Your task to perform on an android device: turn off improve location accuracy Image 0: 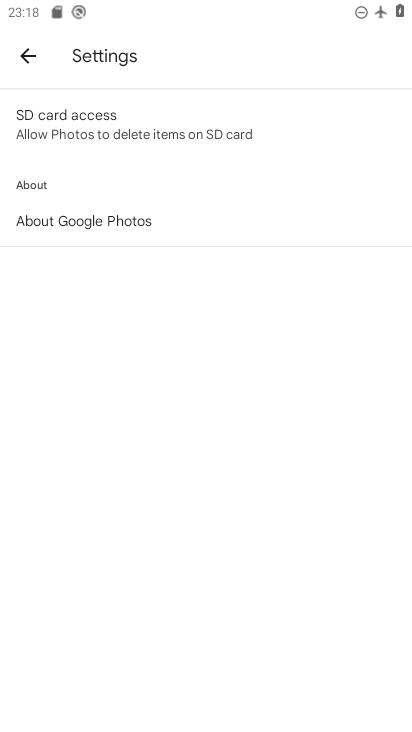
Step 0: press home button
Your task to perform on an android device: turn off improve location accuracy Image 1: 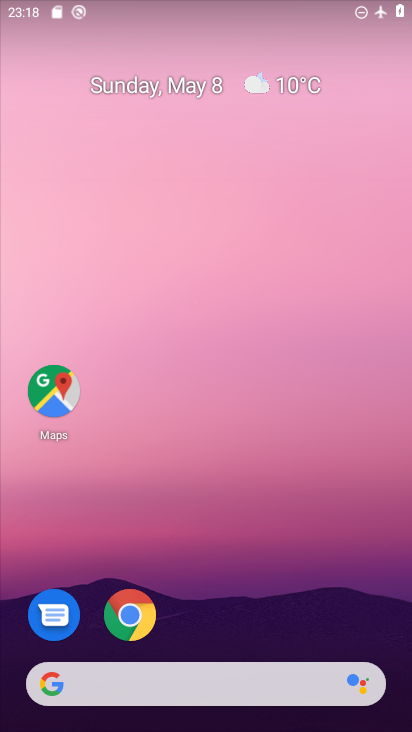
Step 1: drag from (301, 591) to (246, 139)
Your task to perform on an android device: turn off improve location accuracy Image 2: 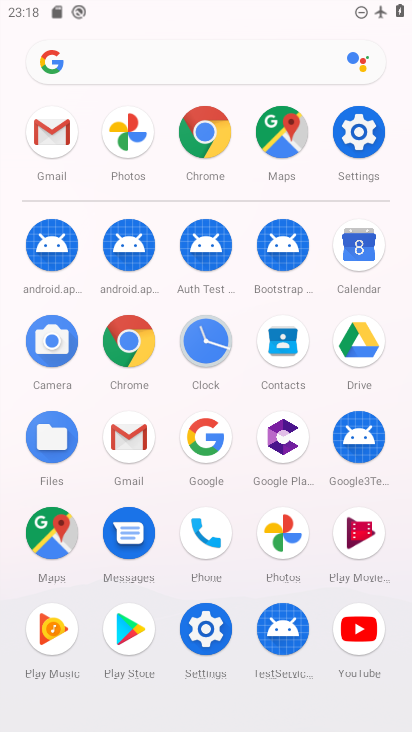
Step 2: click (366, 142)
Your task to perform on an android device: turn off improve location accuracy Image 3: 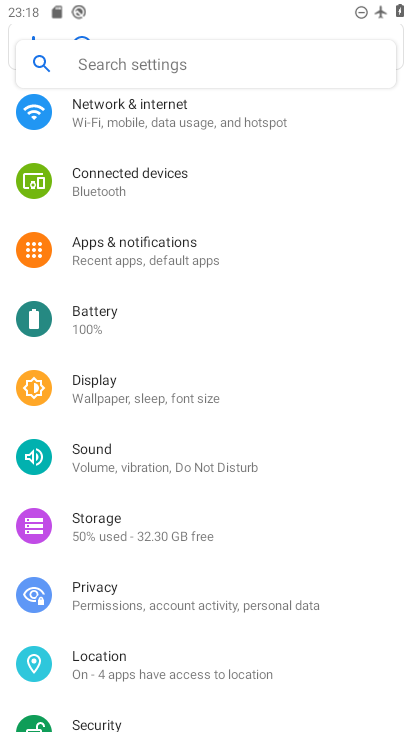
Step 3: drag from (163, 627) to (247, 188)
Your task to perform on an android device: turn off improve location accuracy Image 4: 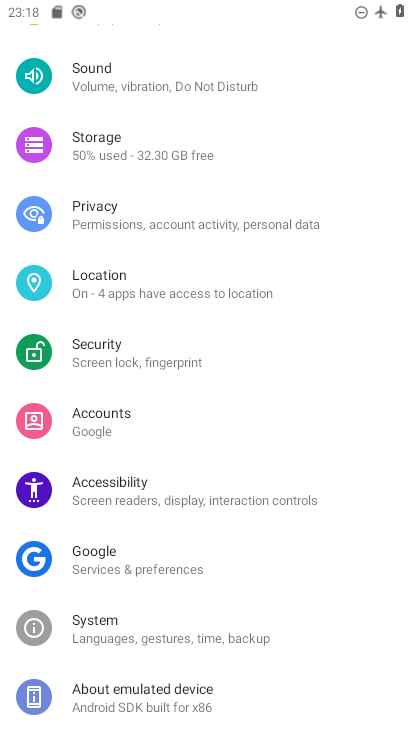
Step 4: click (153, 281)
Your task to perform on an android device: turn off improve location accuracy Image 5: 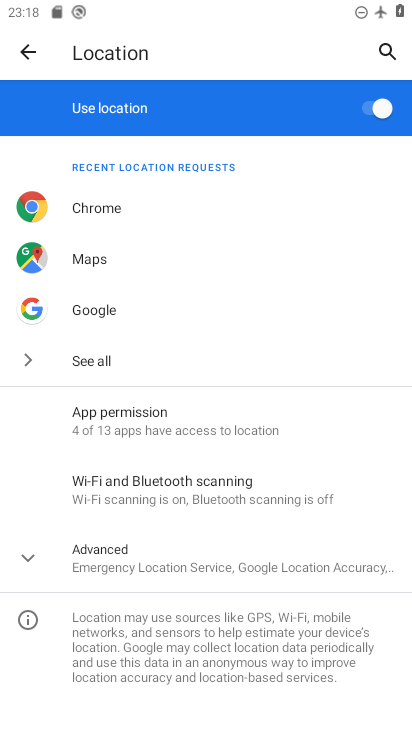
Step 5: click (143, 547)
Your task to perform on an android device: turn off improve location accuracy Image 6: 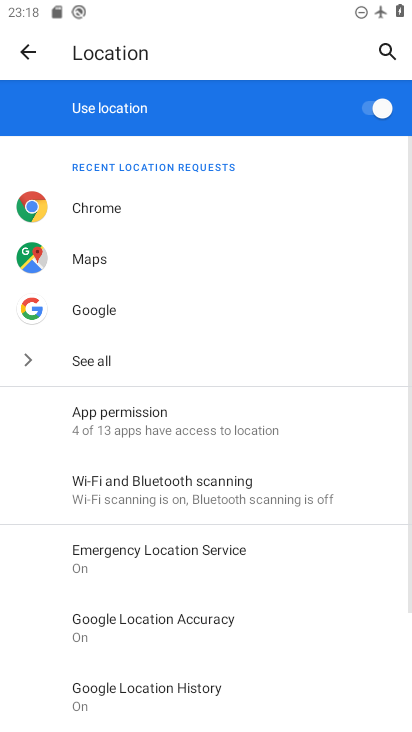
Step 6: drag from (333, 630) to (289, 266)
Your task to perform on an android device: turn off improve location accuracy Image 7: 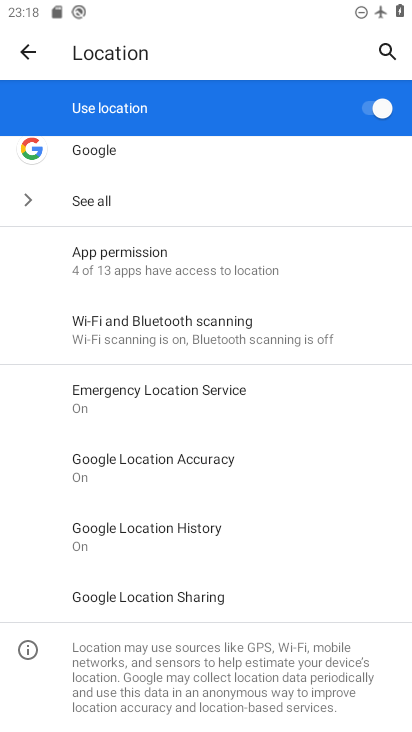
Step 7: click (206, 471)
Your task to perform on an android device: turn off improve location accuracy Image 8: 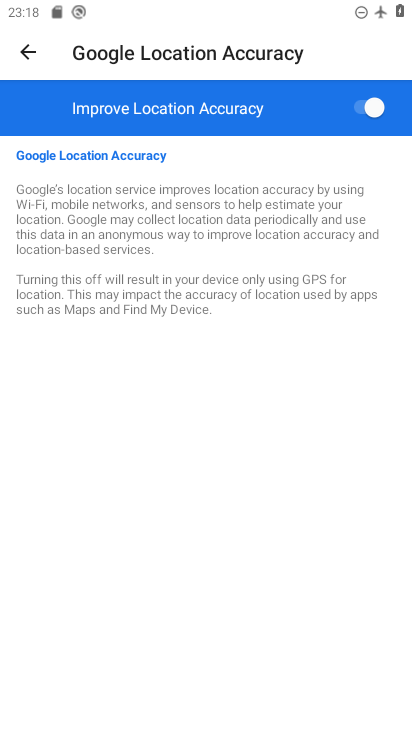
Step 8: click (372, 108)
Your task to perform on an android device: turn off improve location accuracy Image 9: 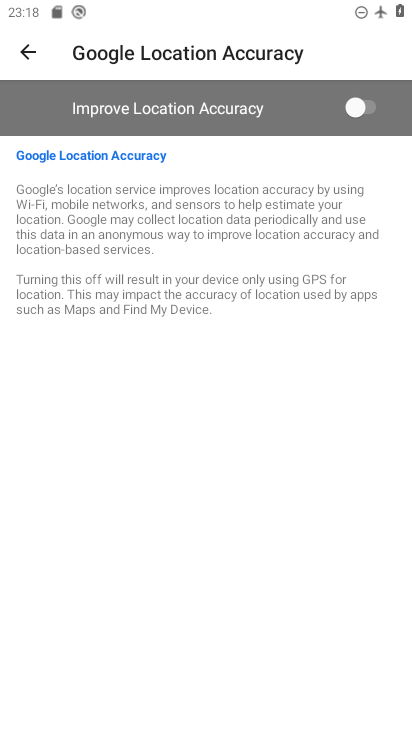
Step 9: task complete